Your task to perform on an android device: turn off location Image 0: 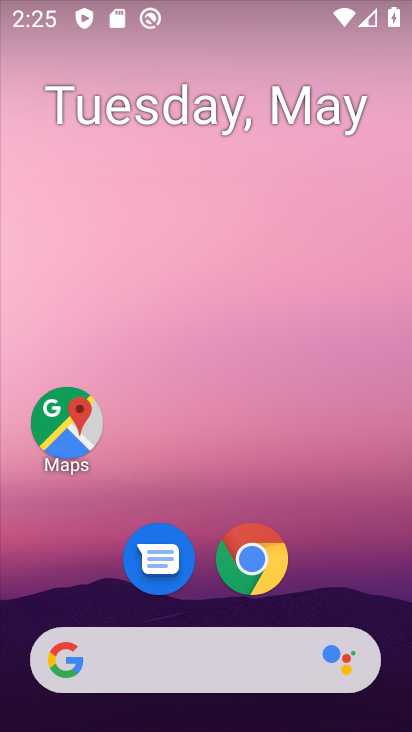
Step 0: drag from (201, 591) to (219, 183)
Your task to perform on an android device: turn off location Image 1: 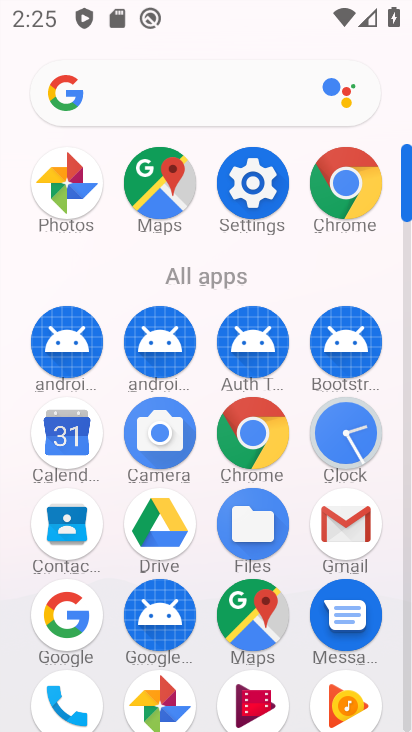
Step 1: click (253, 172)
Your task to perform on an android device: turn off location Image 2: 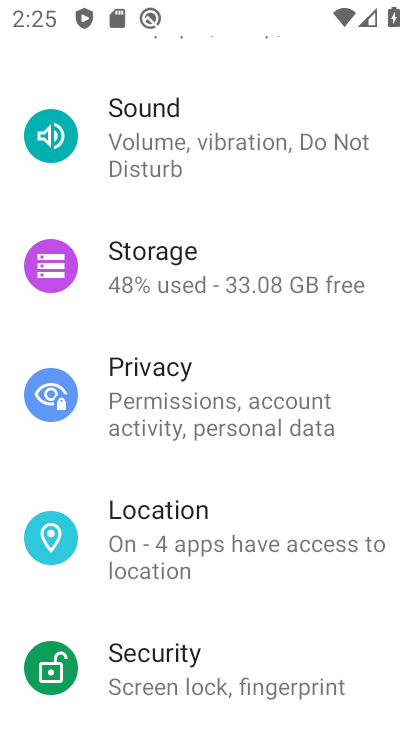
Step 2: click (166, 503)
Your task to perform on an android device: turn off location Image 3: 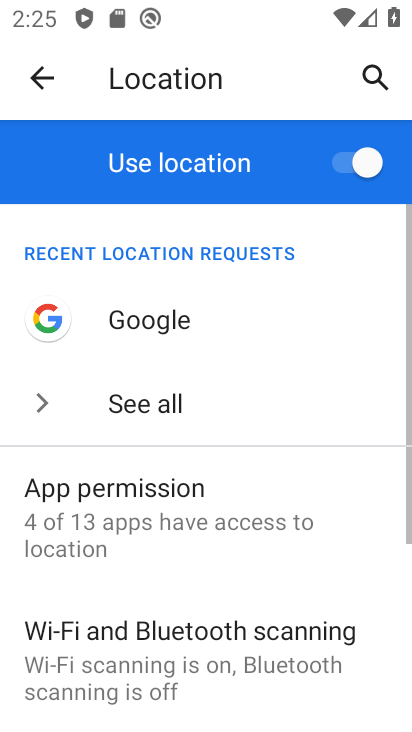
Step 3: click (337, 159)
Your task to perform on an android device: turn off location Image 4: 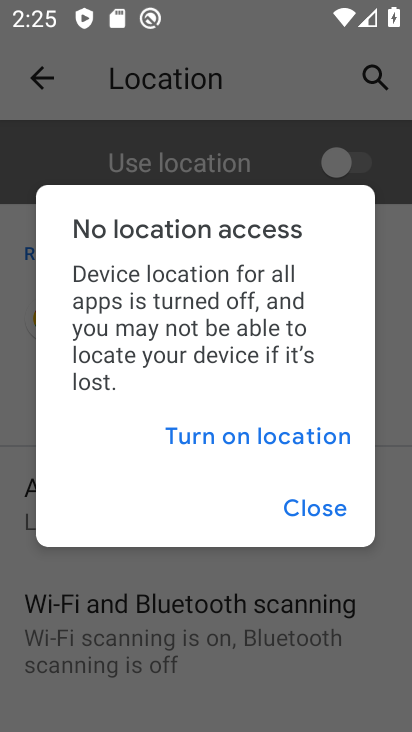
Step 4: task complete